Your task to perform on an android device: Open battery settings Image 0: 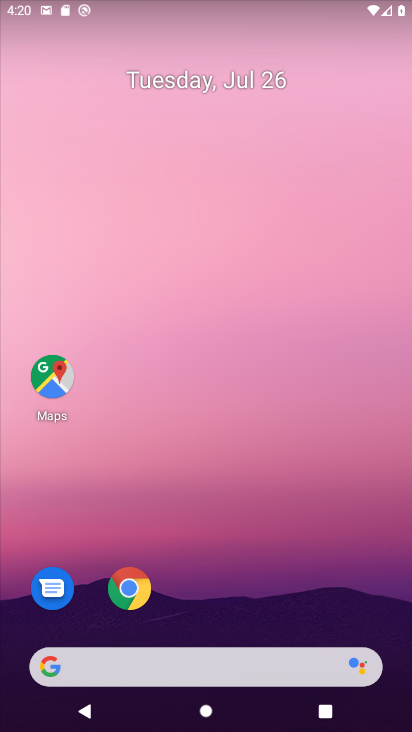
Step 0: drag from (258, 529) to (397, 17)
Your task to perform on an android device: Open battery settings Image 1: 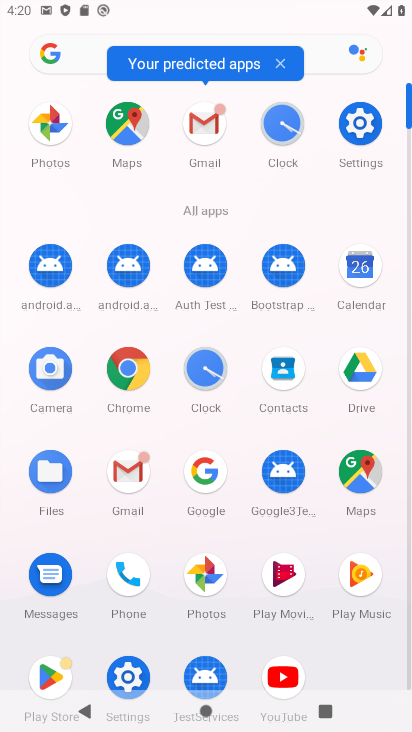
Step 1: click (371, 121)
Your task to perform on an android device: Open battery settings Image 2: 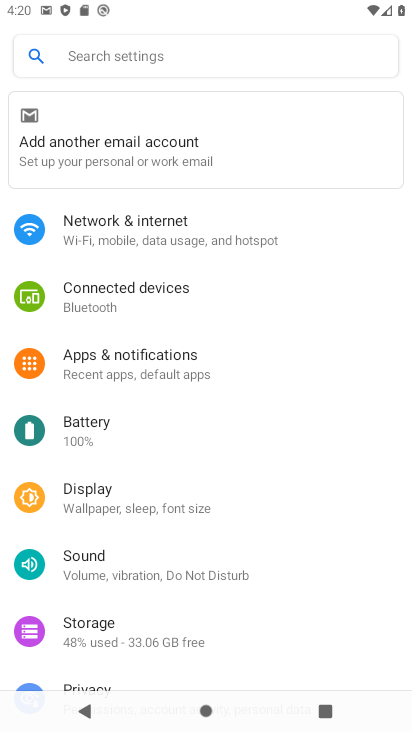
Step 2: click (72, 442)
Your task to perform on an android device: Open battery settings Image 3: 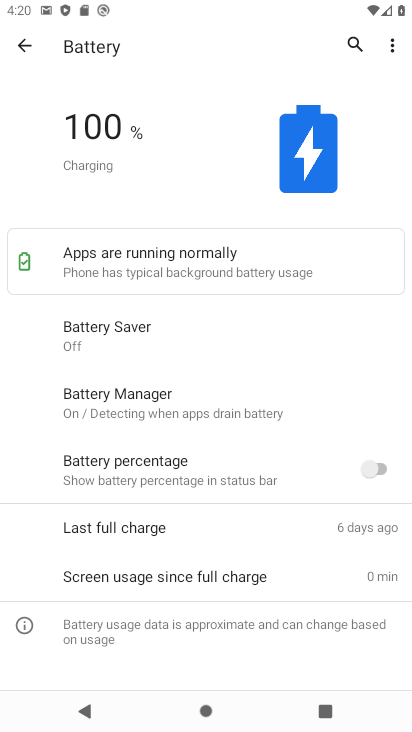
Step 3: task complete